Your task to perform on an android device: turn smart compose on in the gmail app Image 0: 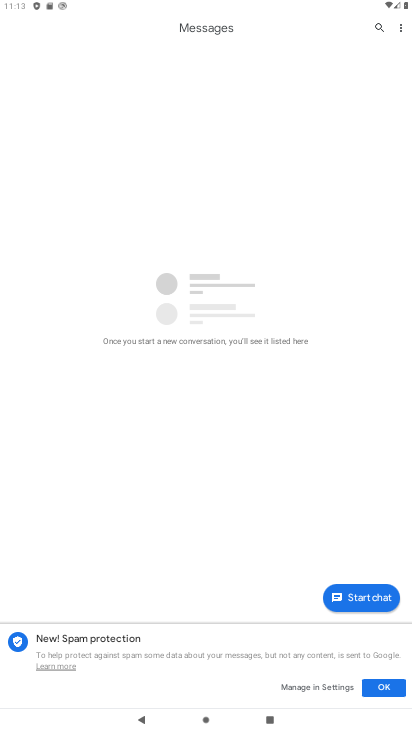
Step 0: press home button
Your task to perform on an android device: turn smart compose on in the gmail app Image 1: 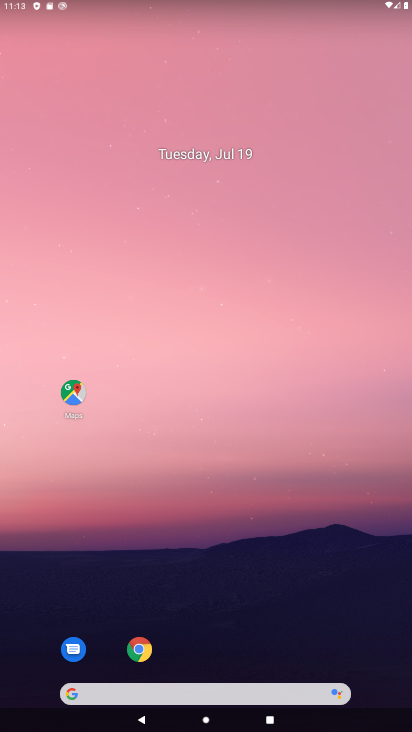
Step 1: drag from (252, 613) to (328, 143)
Your task to perform on an android device: turn smart compose on in the gmail app Image 2: 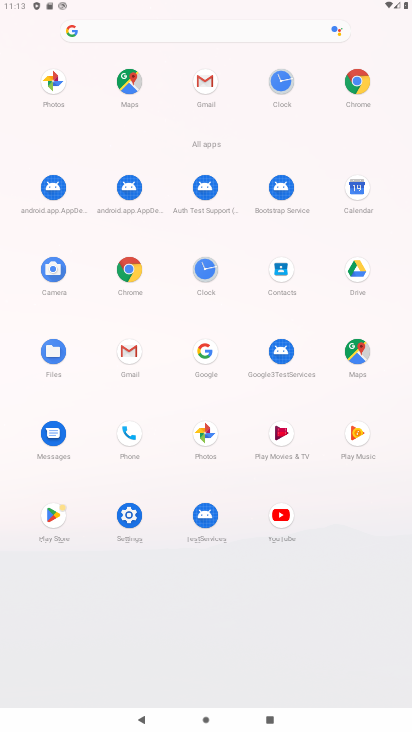
Step 2: click (121, 352)
Your task to perform on an android device: turn smart compose on in the gmail app Image 3: 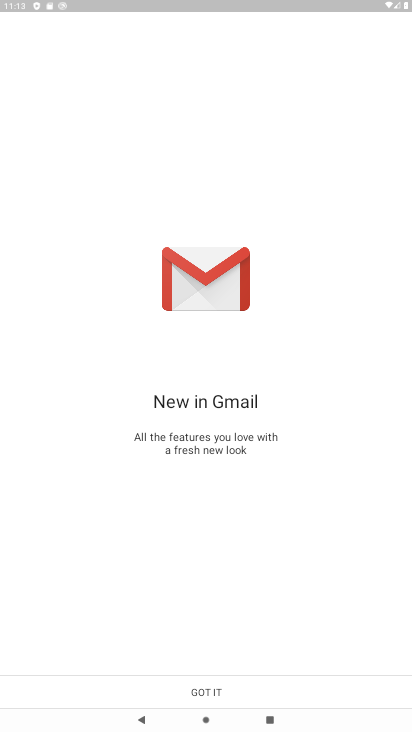
Step 3: click (294, 691)
Your task to perform on an android device: turn smart compose on in the gmail app Image 4: 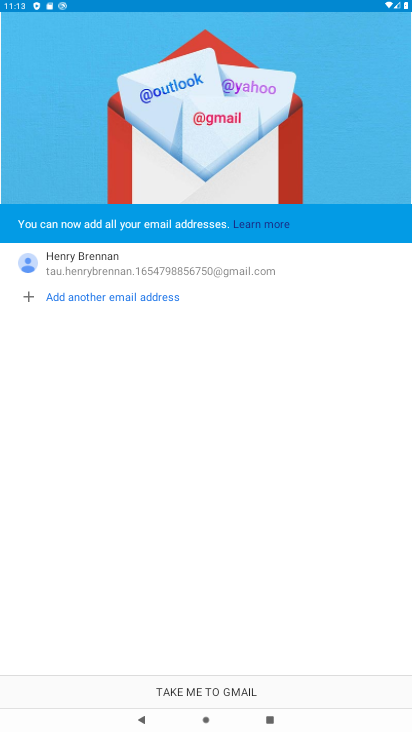
Step 4: click (294, 691)
Your task to perform on an android device: turn smart compose on in the gmail app Image 5: 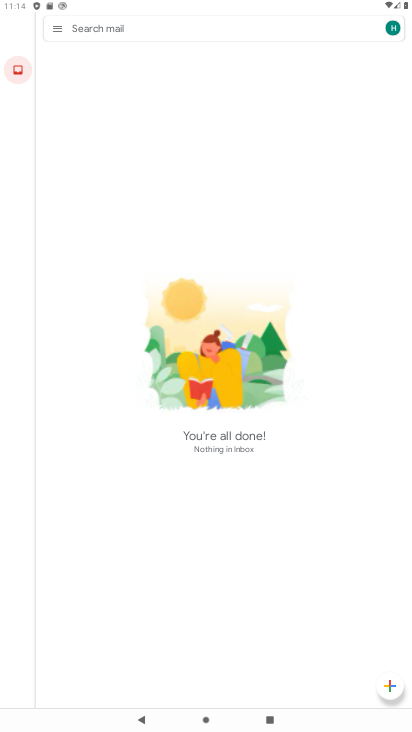
Step 5: click (64, 33)
Your task to perform on an android device: turn smart compose on in the gmail app Image 6: 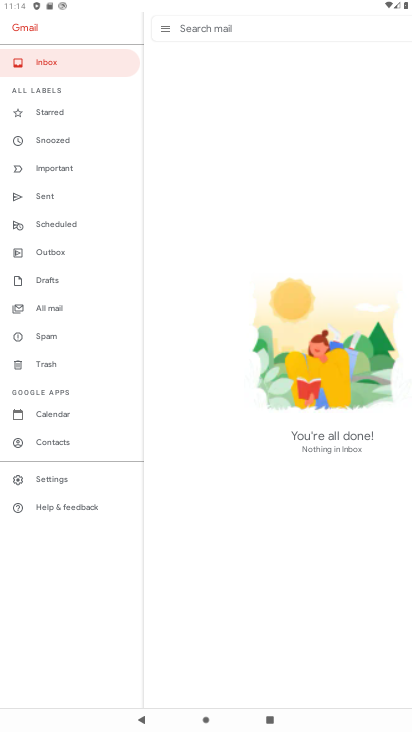
Step 6: click (68, 483)
Your task to perform on an android device: turn smart compose on in the gmail app Image 7: 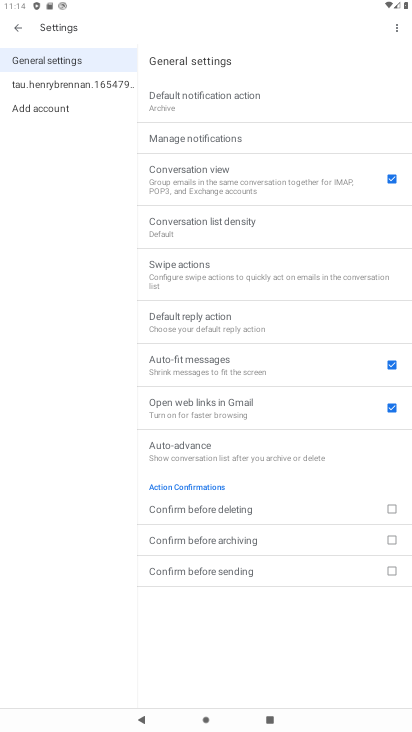
Step 7: click (81, 87)
Your task to perform on an android device: turn smart compose on in the gmail app Image 8: 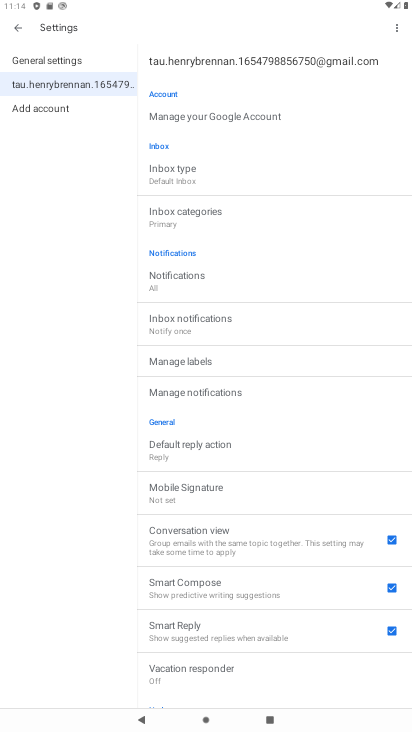
Step 8: task complete